Your task to perform on an android device: open app "YouTube Kids" (install if not already installed), go to login, and select forgot password Image 0: 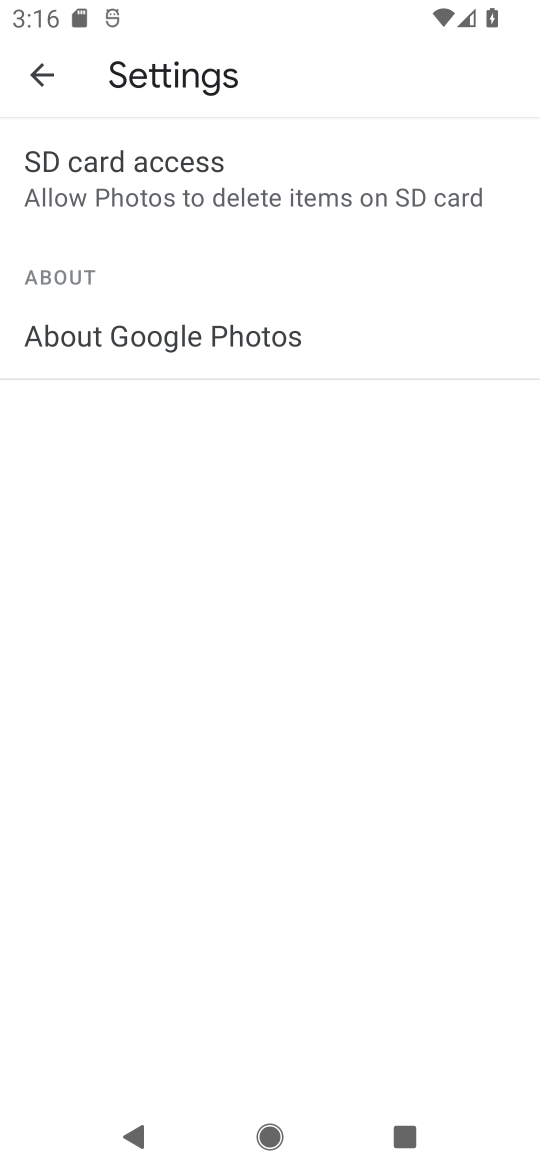
Step 0: press home button
Your task to perform on an android device: open app "YouTube Kids" (install if not already installed), go to login, and select forgot password Image 1: 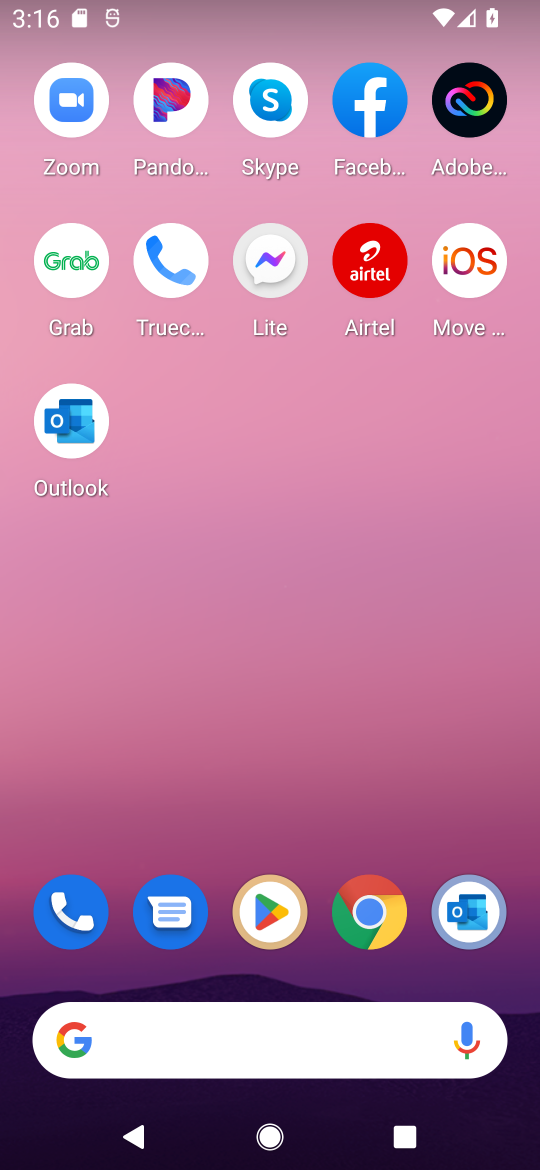
Step 1: drag from (245, 866) to (256, 224)
Your task to perform on an android device: open app "YouTube Kids" (install if not already installed), go to login, and select forgot password Image 2: 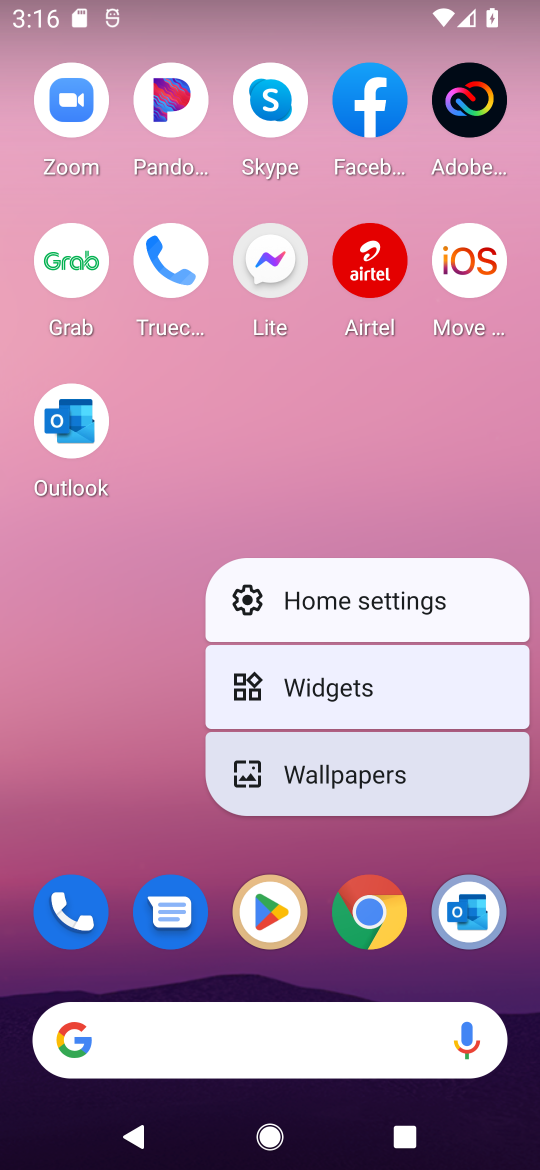
Step 2: drag from (200, 1049) to (341, 119)
Your task to perform on an android device: open app "YouTube Kids" (install if not already installed), go to login, and select forgot password Image 3: 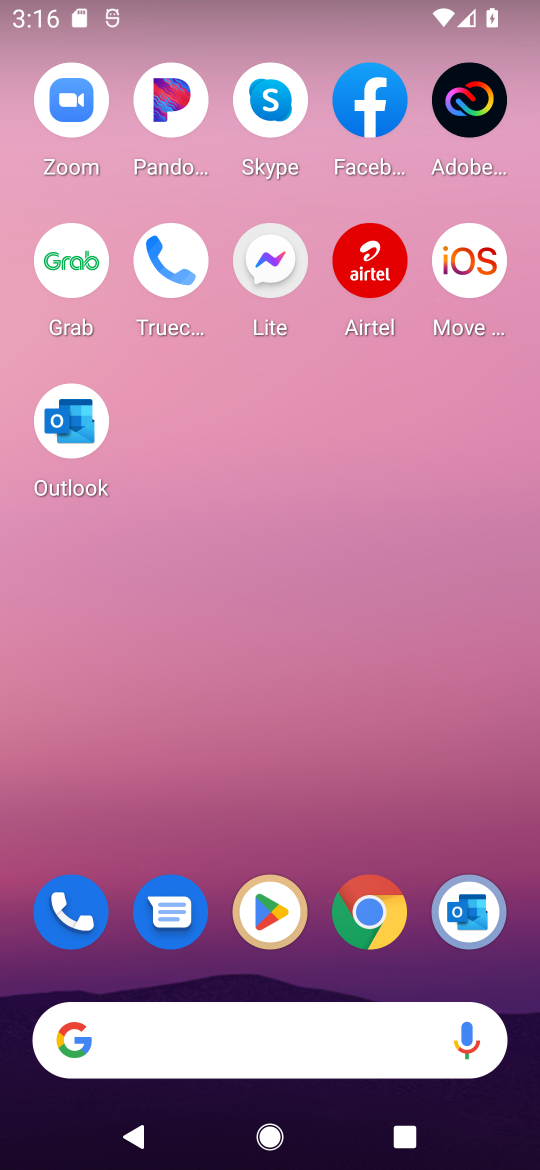
Step 3: drag from (220, 1055) to (285, 364)
Your task to perform on an android device: open app "YouTube Kids" (install if not already installed), go to login, and select forgot password Image 4: 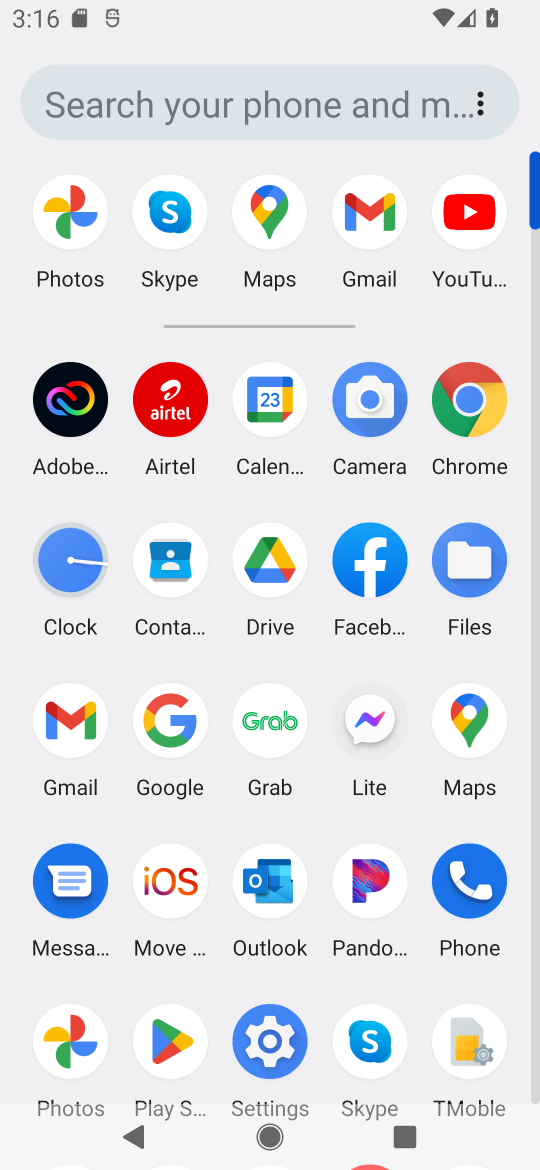
Step 4: click (176, 1049)
Your task to perform on an android device: open app "YouTube Kids" (install if not already installed), go to login, and select forgot password Image 5: 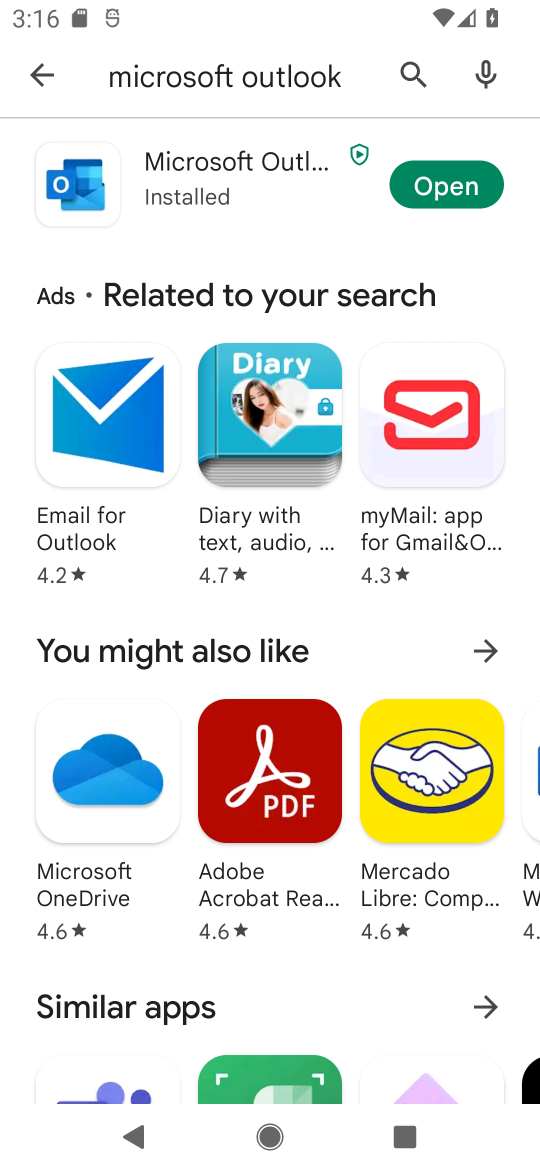
Step 5: press back button
Your task to perform on an android device: open app "YouTube Kids" (install if not already installed), go to login, and select forgot password Image 6: 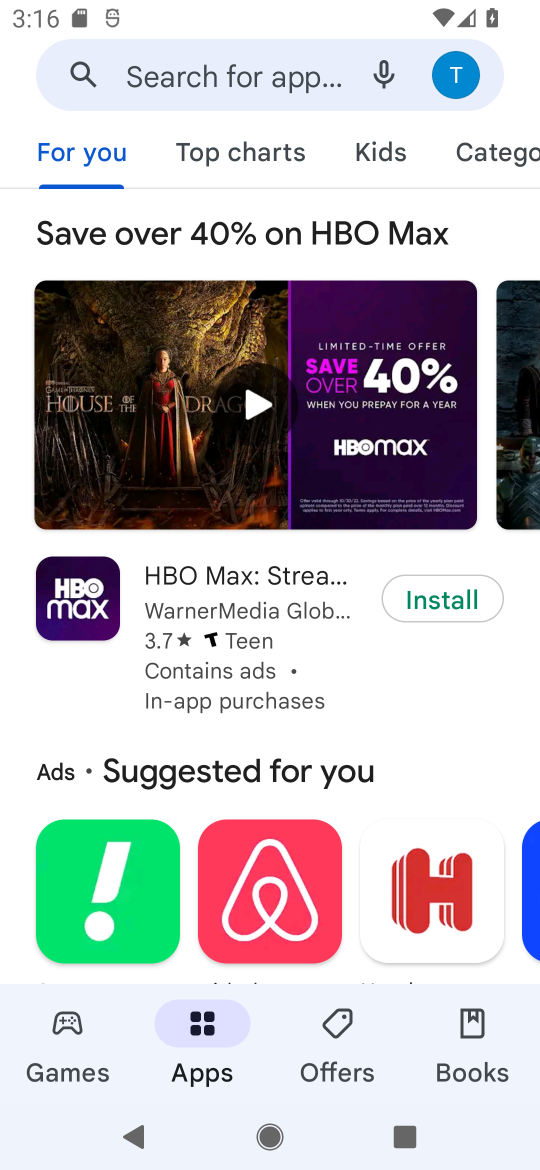
Step 6: click (284, 73)
Your task to perform on an android device: open app "YouTube Kids" (install if not already installed), go to login, and select forgot password Image 7: 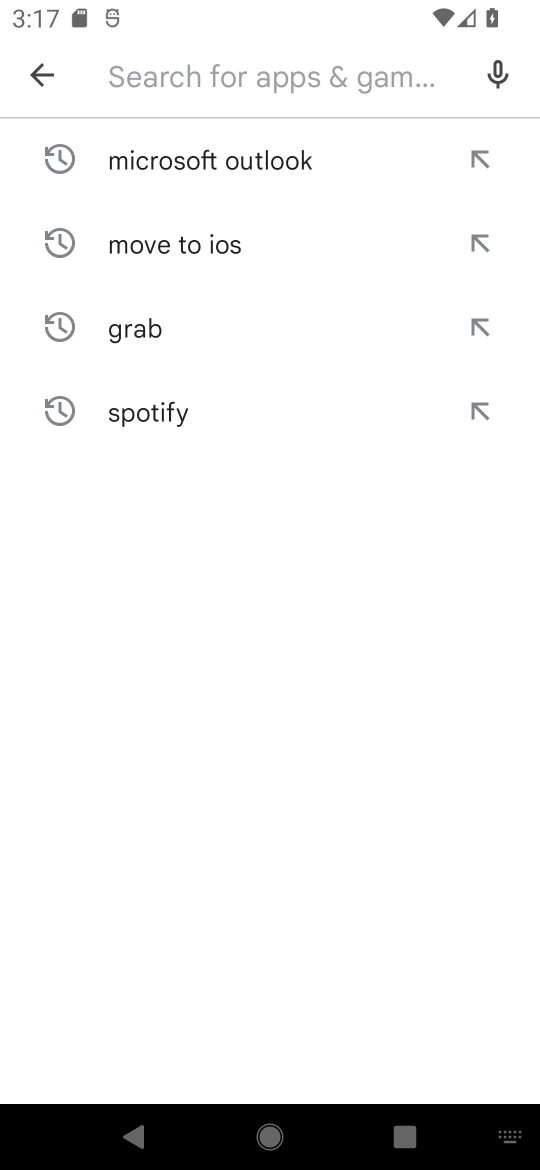
Step 7: type "YouTube Kids"
Your task to perform on an android device: open app "YouTube Kids" (install if not already installed), go to login, and select forgot password Image 8: 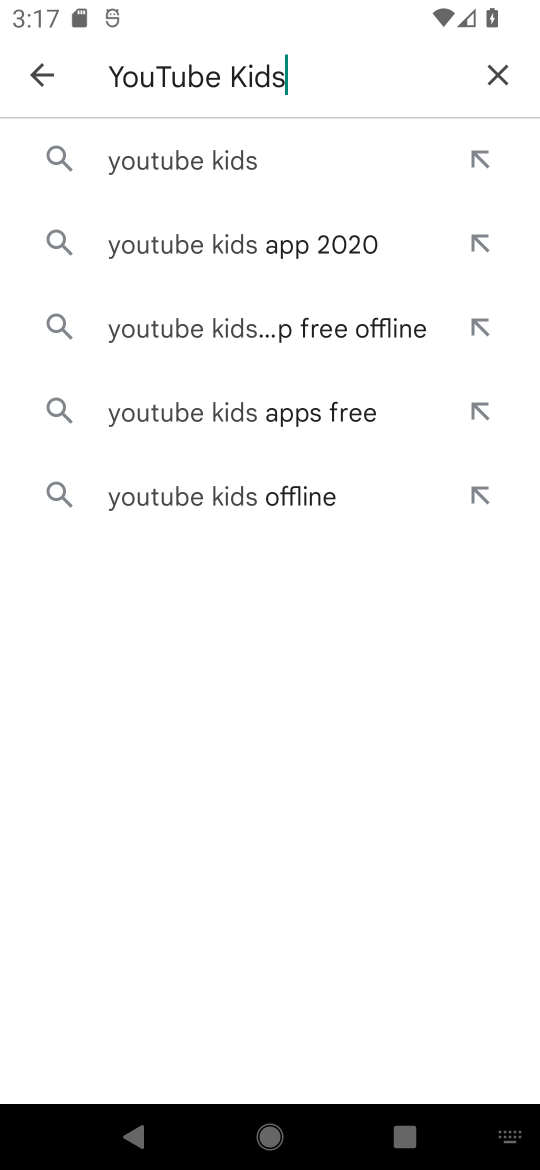
Step 8: click (237, 166)
Your task to perform on an android device: open app "YouTube Kids" (install if not already installed), go to login, and select forgot password Image 9: 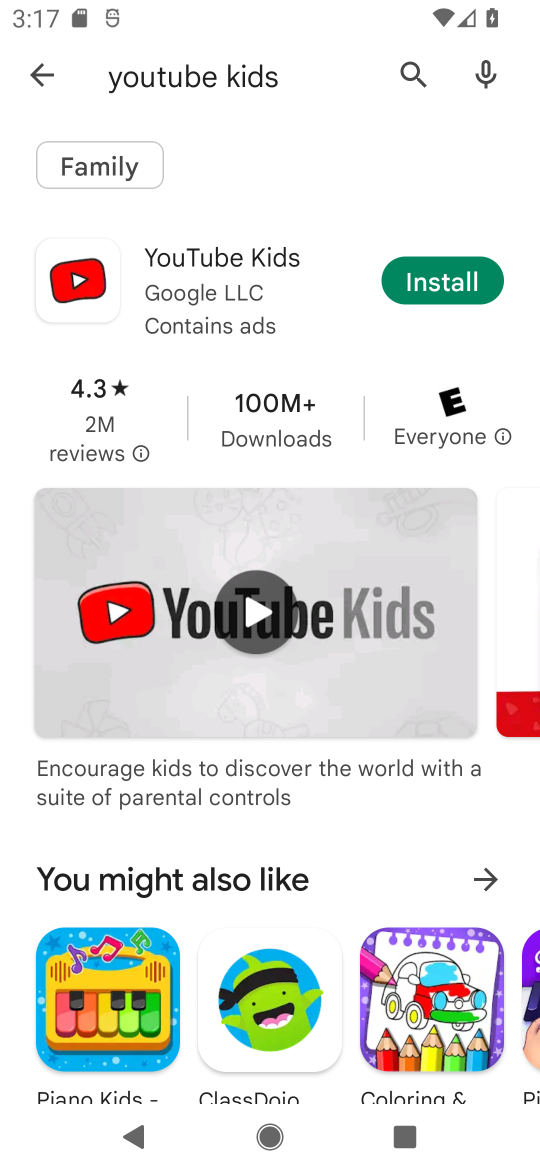
Step 9: click (455, 285)
Your task to perform on an android device: open app "YouTube Kids" (install if not already installed), go to login, and select forgot password Image 10: 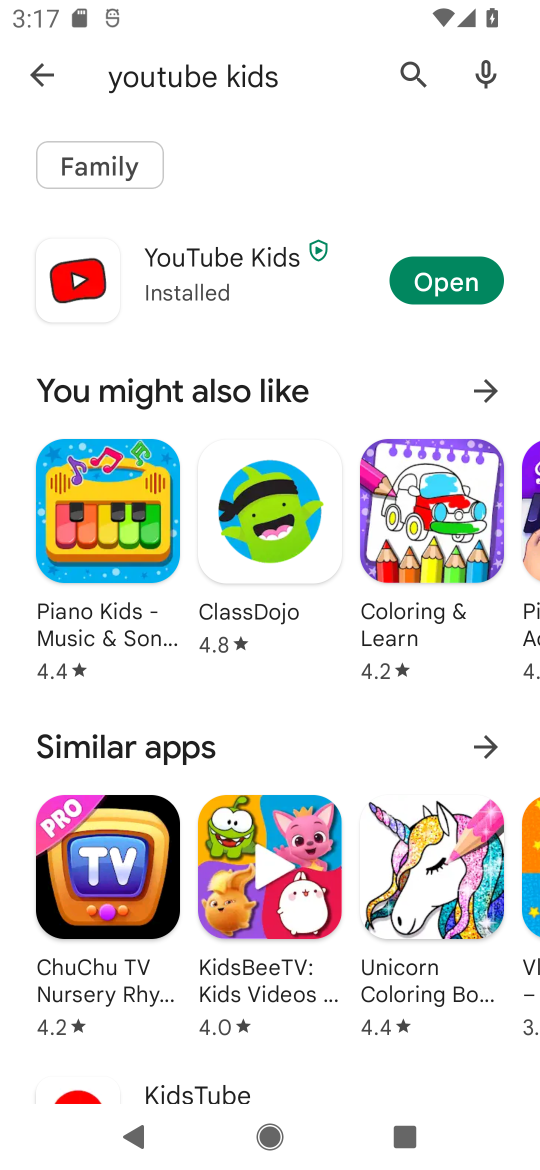
Step 10: click (457, 289)
Your task to perform on an android device: open app "YouTube Kids" (install if not already installed), go to login, and select forgot password Image 11: 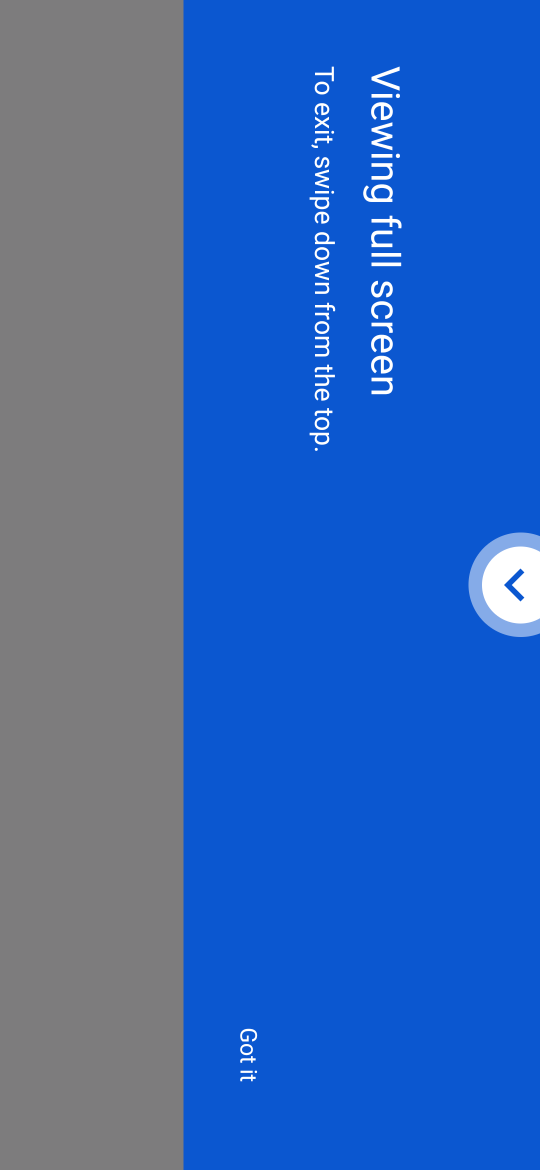
Step 11: click (520, 590)
Your task to perform on an android device: open app "YouTube Kids" (install if not already installed), go to login, and select forgot password Image 12: 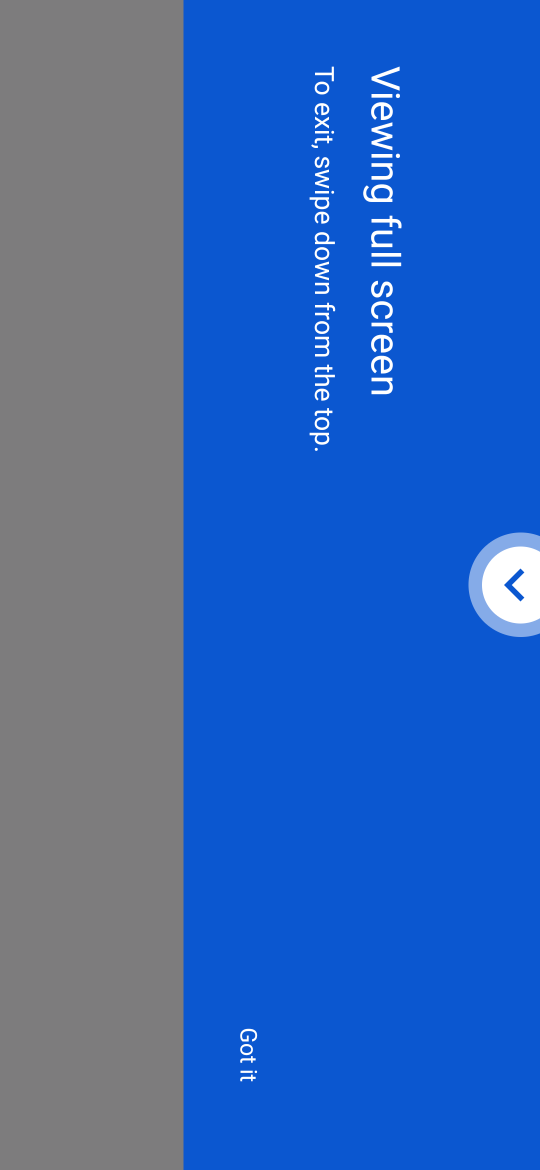
Step 12: click (510, 585)
Your task to perform on an android device: open app "YouTube Kids" (install if not already installed), go to login, and select forgot password Image 13: 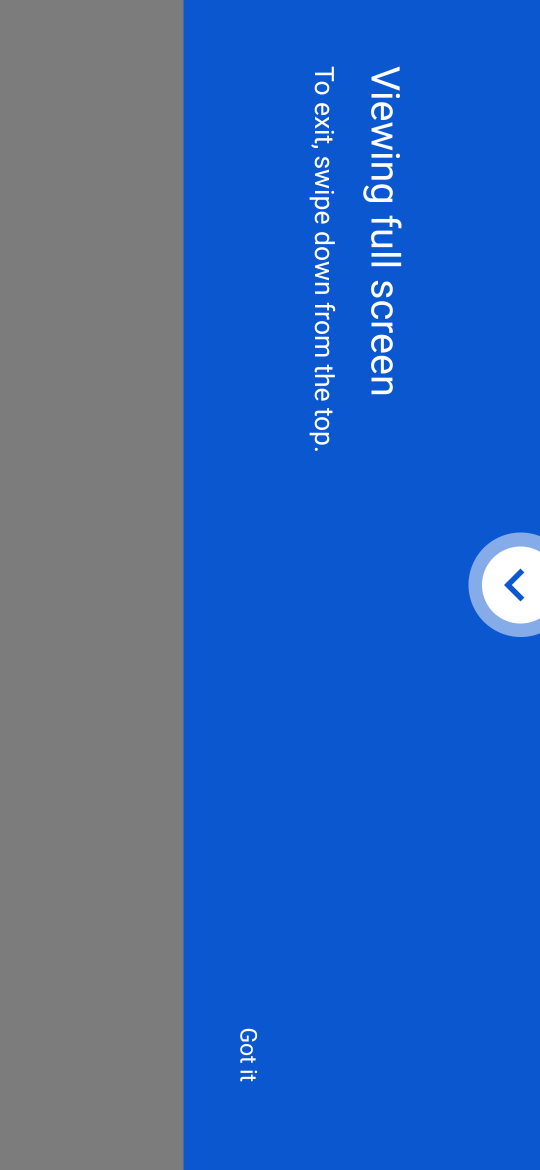
Step 13: click (510, 585)
Your task to perform on an android device: open app "YouTube Kids" (install if not already installed), go to login, and select forgot password Image 14: 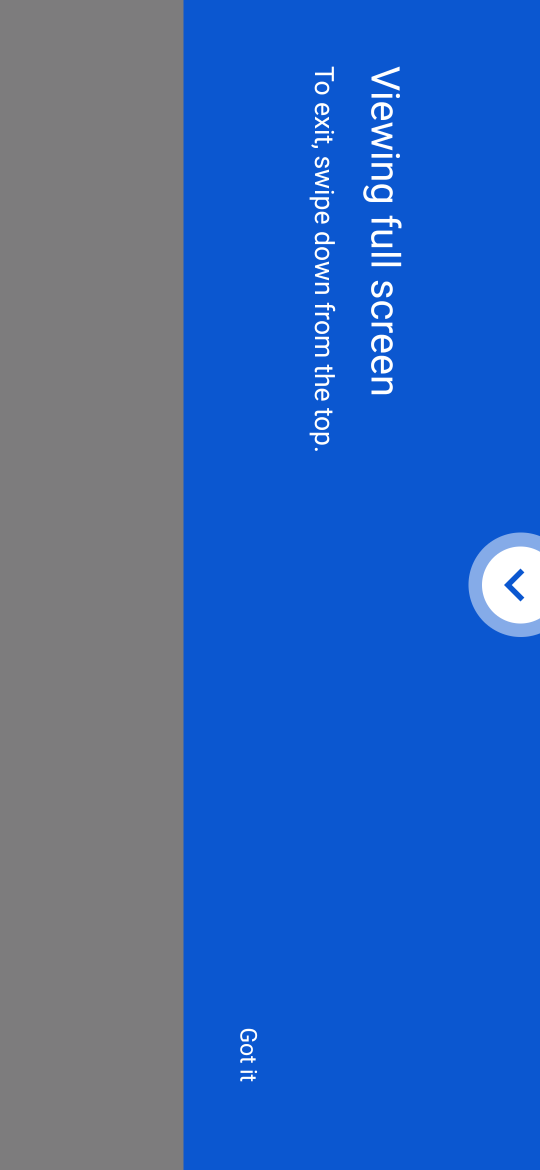
Step 14: click (510, 585)
Your task to perform on an android device: open app "YouTube Kids" (install if not already installed), go to login, and select forgot password Image 15: 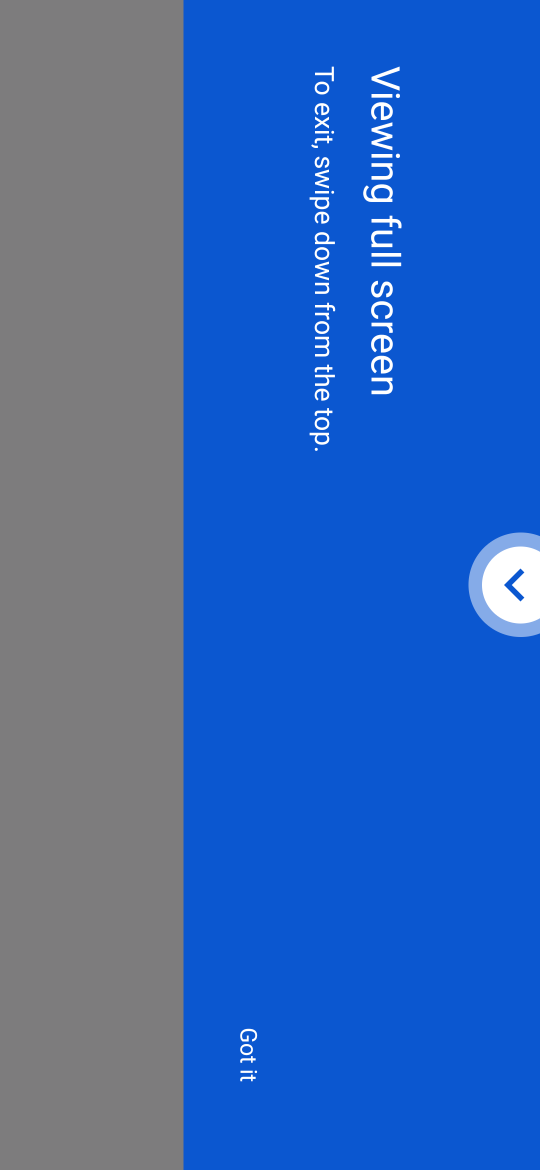
Step 15: click (508, 593)
Your task to perform on an android device: open app "YouTube Kids" (install if not already installed), go to login, and select forgot password Image 16: 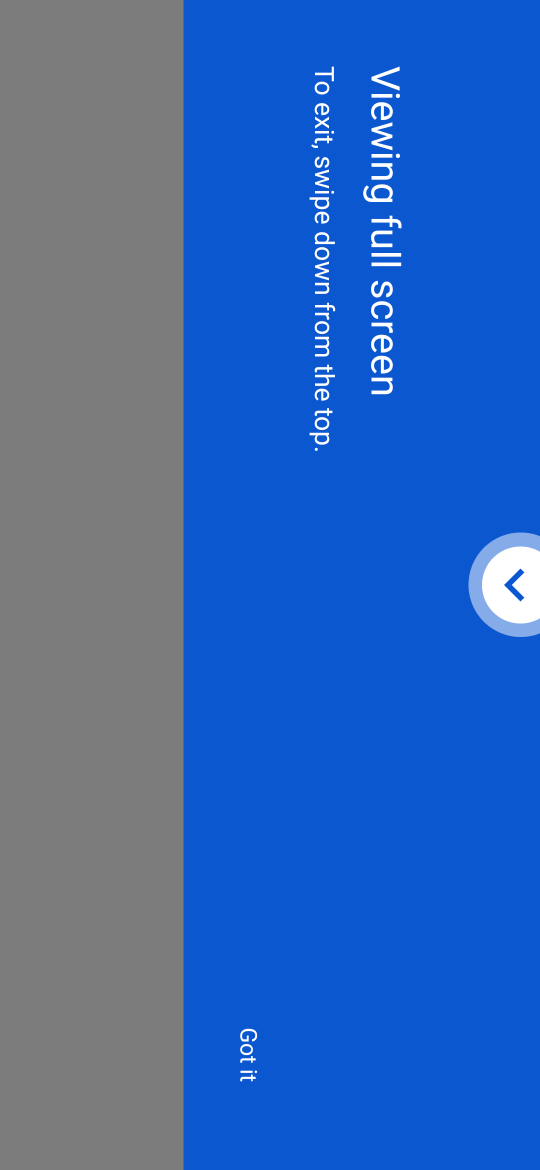
Step 16: click (508, 593)
Your task to perform on an android device: open app "YouTube Kids" (install if not already installed), go to login, and select forgot password Image 17: 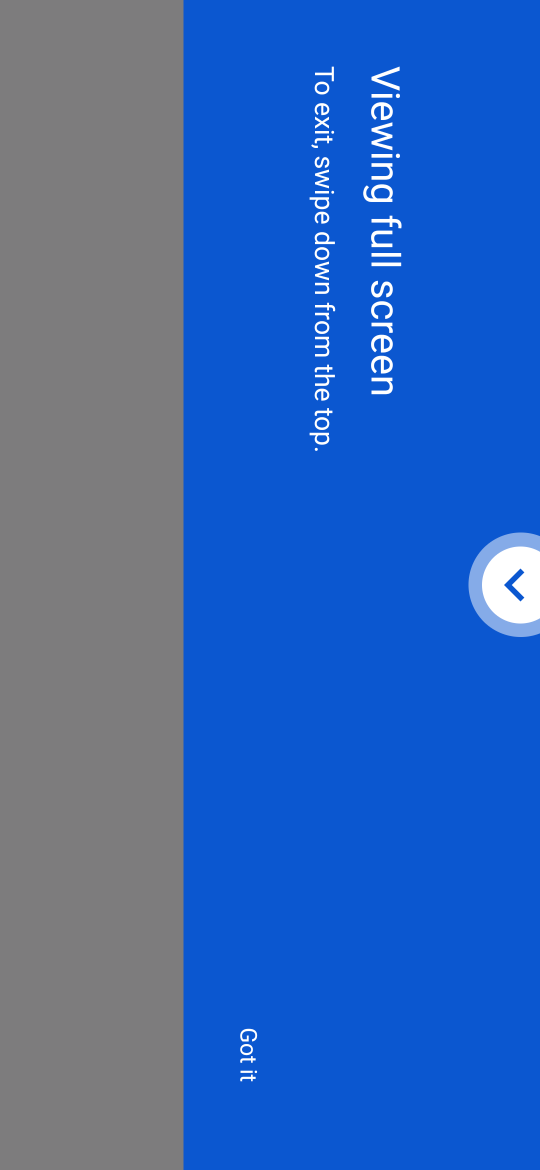
Step 17: click (508, 593)
Your task to perform on an android device: open app "YouTube Kids" (install if not already installed), go to login, and select forgot password Image 18: 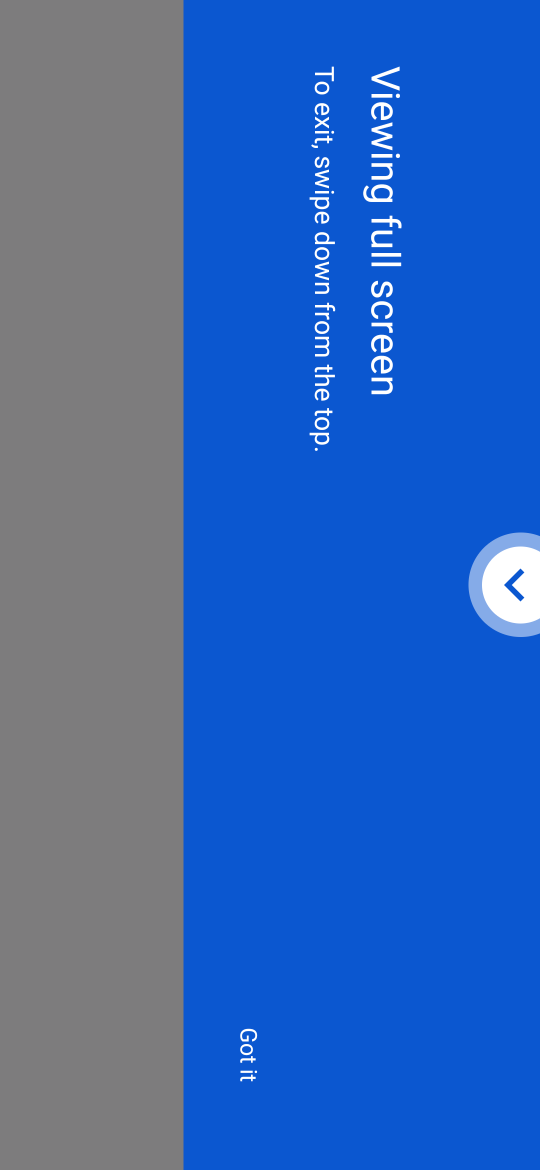
Step 18: click (508, 593)
Your task to perform on an android device: open app "YouTube Kids" (install if not already installed), go to login, and select forgot password Image 19: 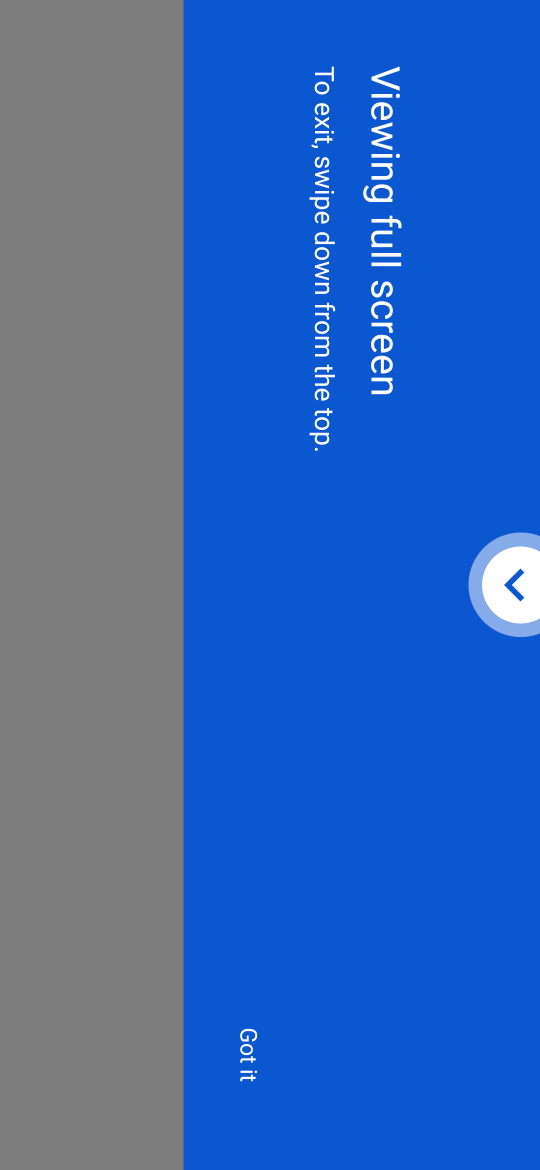
Step 19: click (508, 593)
Your task to perform on an android device: open app "YouTube Kids" (install if not already installed), go to login, and select forgot password Image 20: 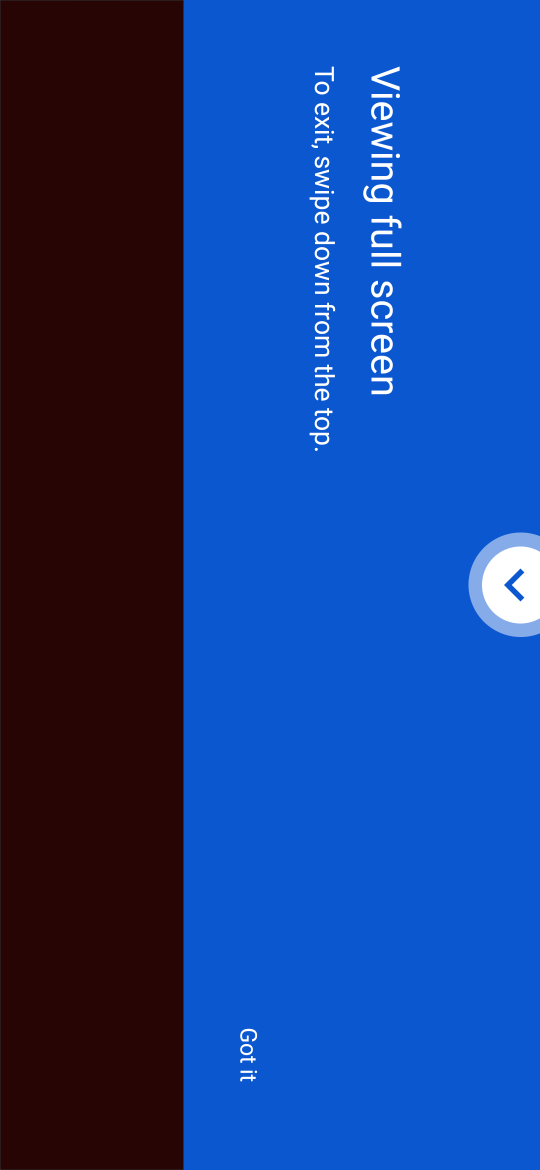
Step 20: click (516, 579)
Your task to perform on an android device: open app "YouTube Kids" (install if not already installed), go to login, and select forgot password Image 21: 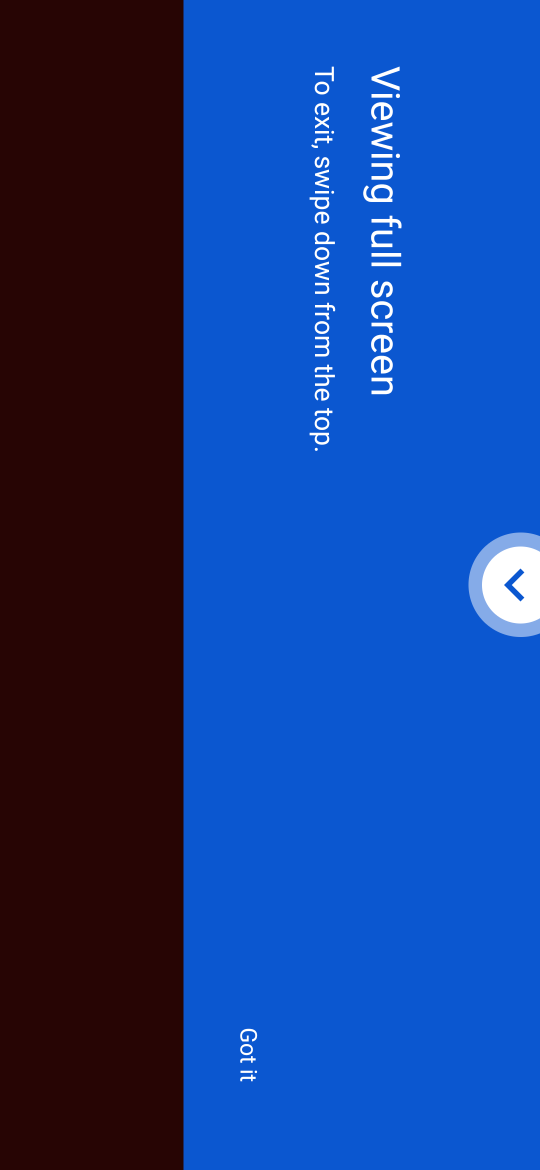
Step 21: click (516, 579)
Your task to perform on an android device: open app "YouTube Kids" (install if not already installed), go to login, and select forgot password Image 22: 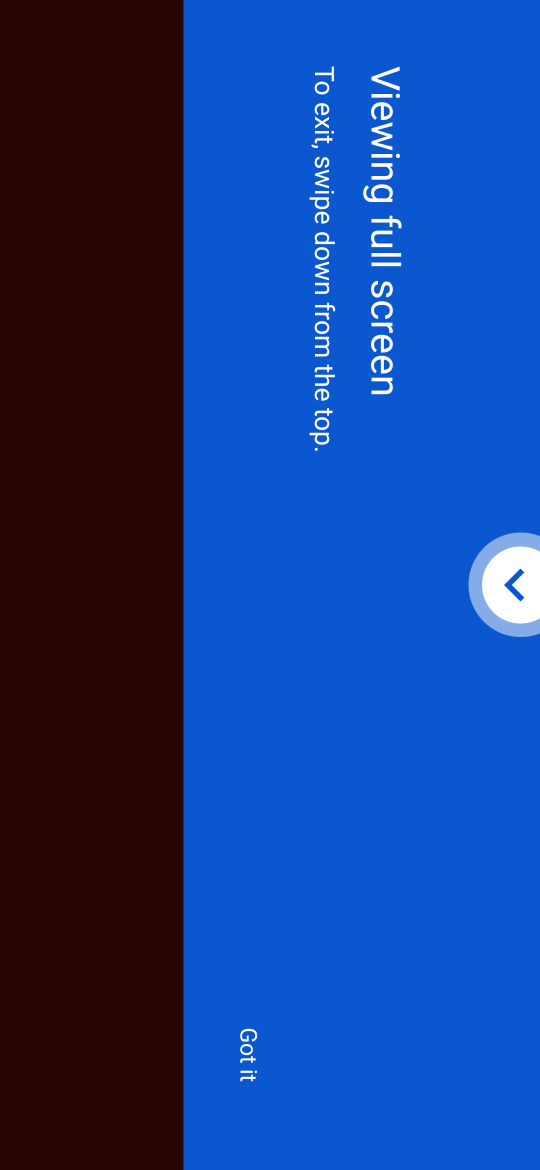
Step 22: click (516, 579)
Your task to perform on an android device: open app "YouTube Kids" (install if not already installed), go to login, and select forgot password Image 23: 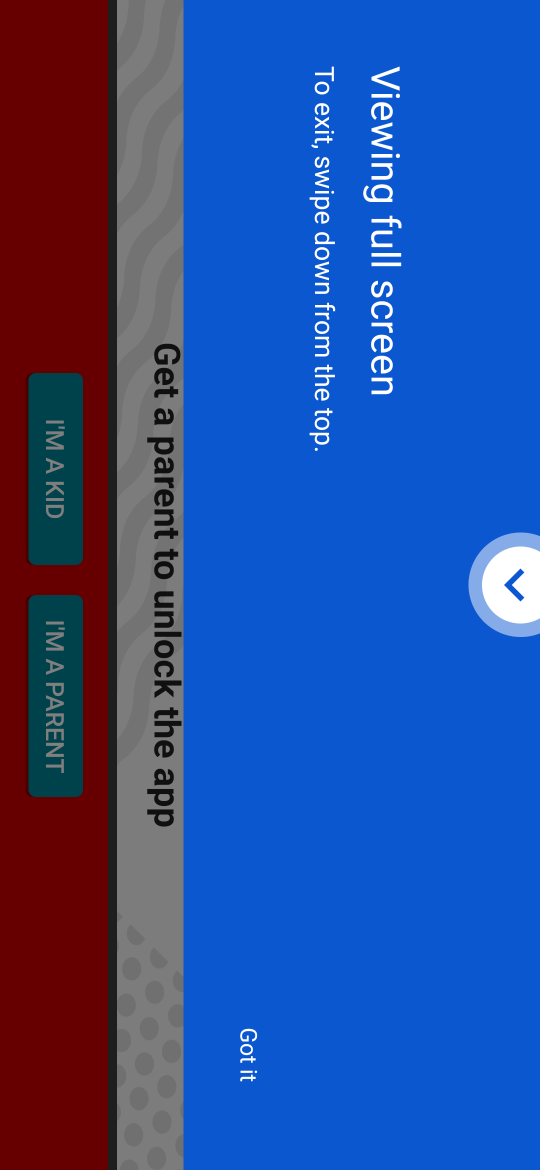
Step 23: click (516, 579)
Your task to perform on an android device: open app "YouTube Kids" (install if not already installed), go to login, and select forgot password Image 24: 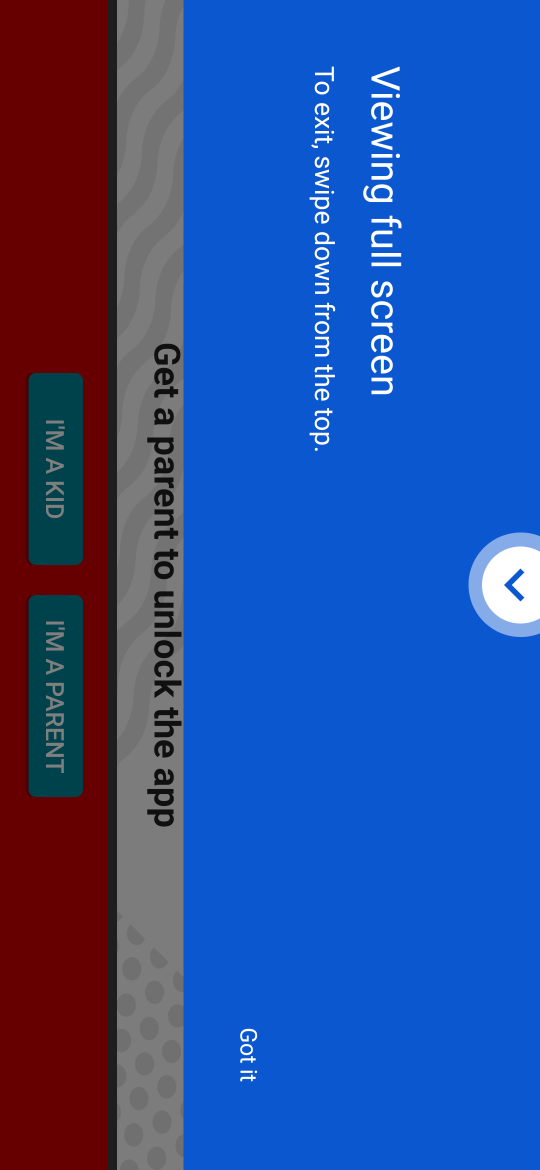
Step 24: click (244, 1056)
Your task to perform on an android device: open app "YouTube Kids" (install if not already installed), go to login, and select forgot password Image 25: 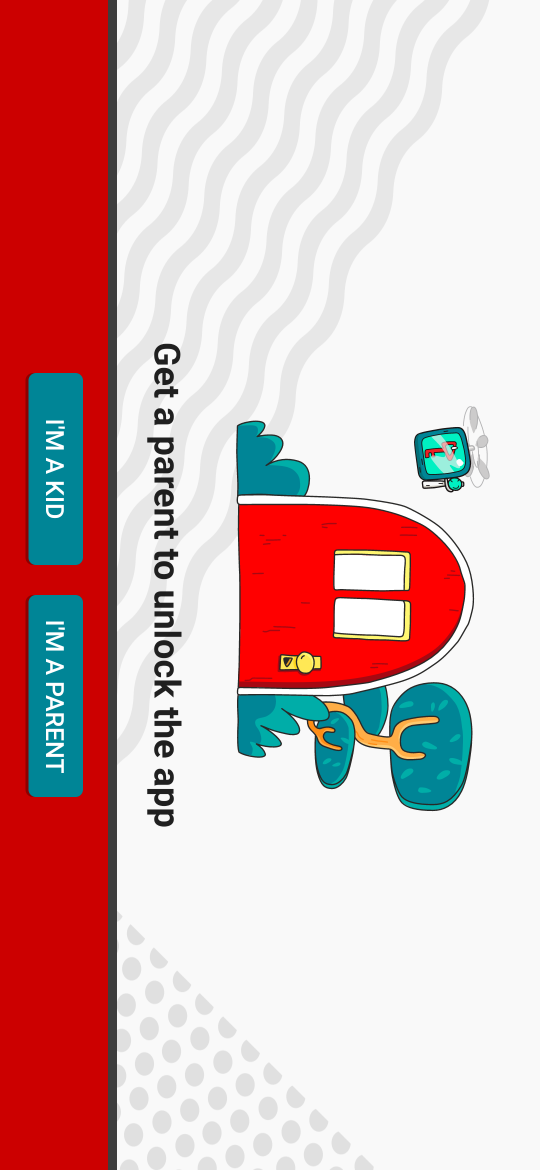
Step 25: click (53, 772)
Your task to perform on an android device: open app "YouTube Kids" (install if not already installed), go to login, and select forgot password Image 26: 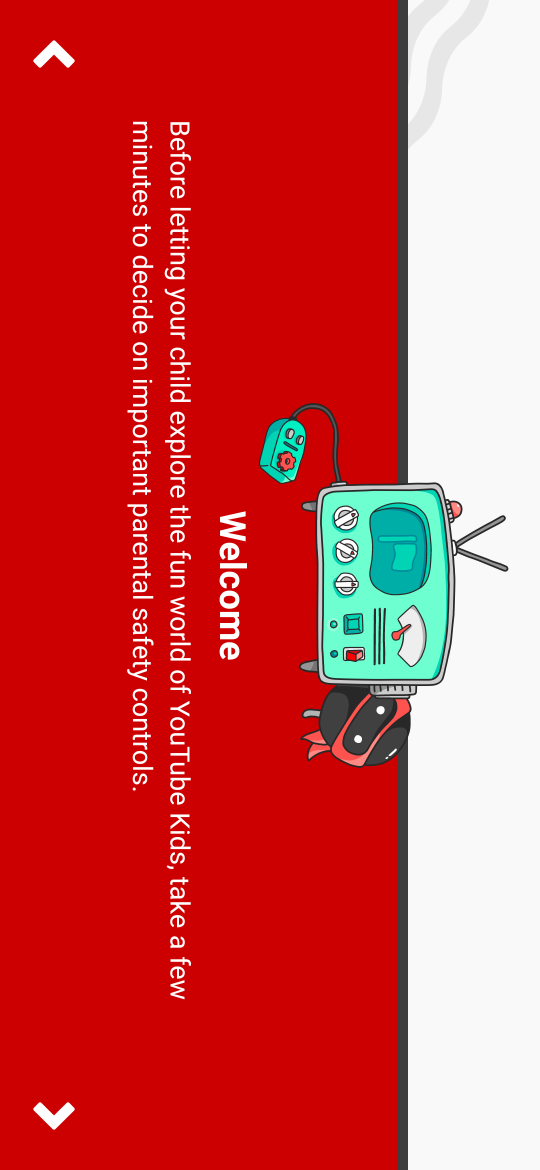
Step 26: click (61, 1109)
Your task to perform on an android device: open app "YouTube Kids" (install if not already installed), go to login, and select forgot password Image 27: 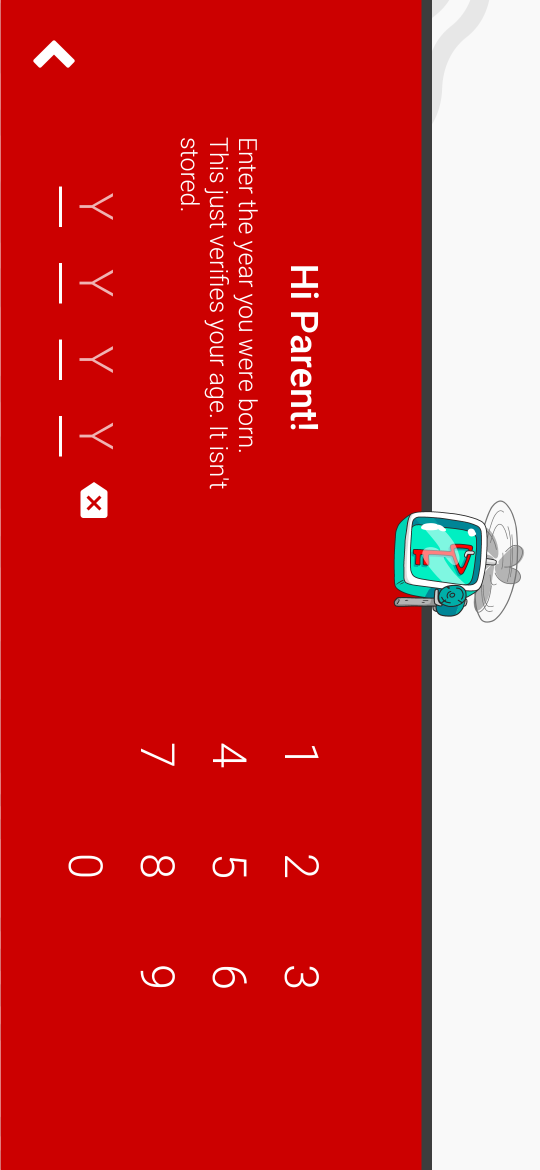
Step 27: task complete